Your task to perform on an android device: find snoozed emails in the gmail app Image 0: 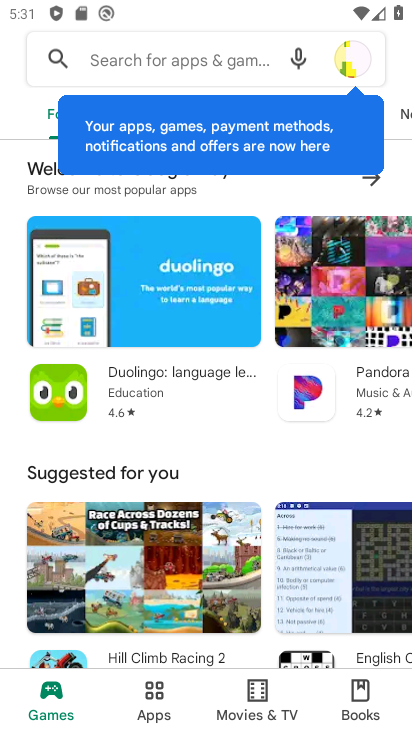
Step 0: press home button
Your task to perform on an android device: find snoozed emails in the gmail app Image 1: 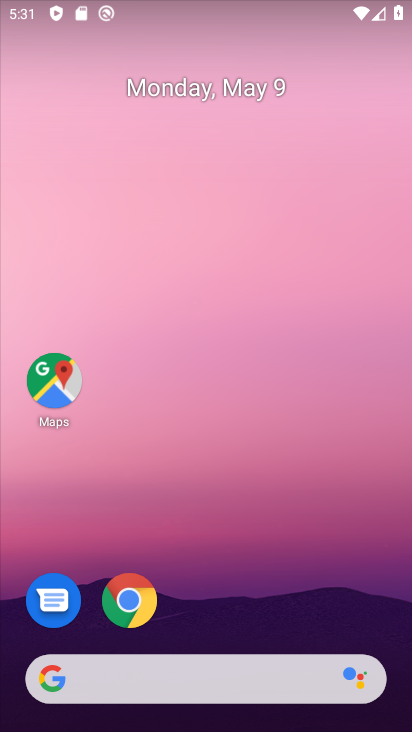
Step 1: drag from (200, 613) to (349, 18)
Your task to perform on an android device: find snoozed emails in the gmail app Image 2: 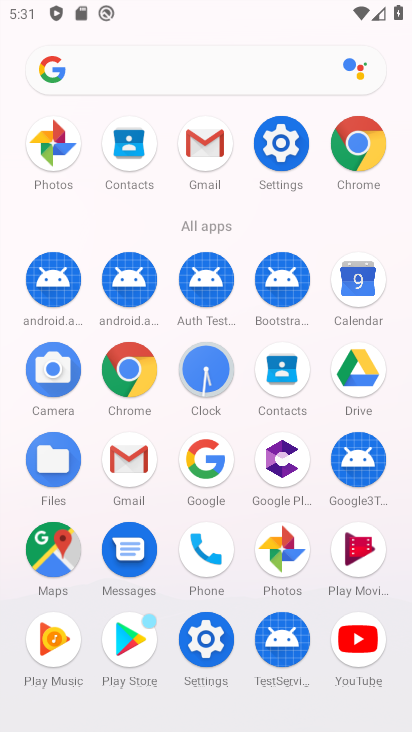
Step 2: click (141, 462)
Your task to perform on an android device: find snoozed emails in the gmail app Image 3: 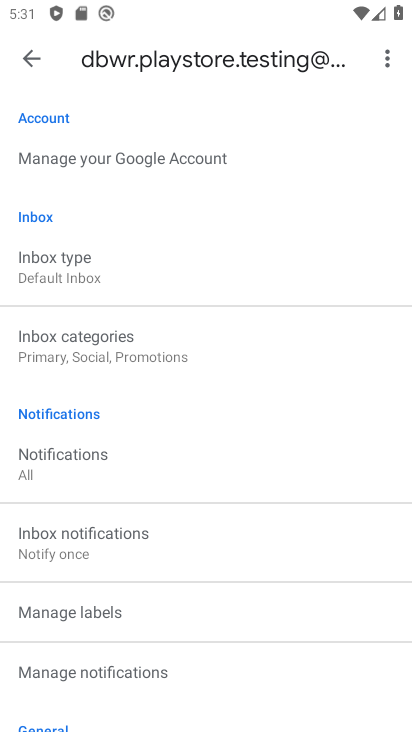
Step 3: click (29, 47)
Your task to perform on an android device: find snoozed emails in the gmail app Image 4: 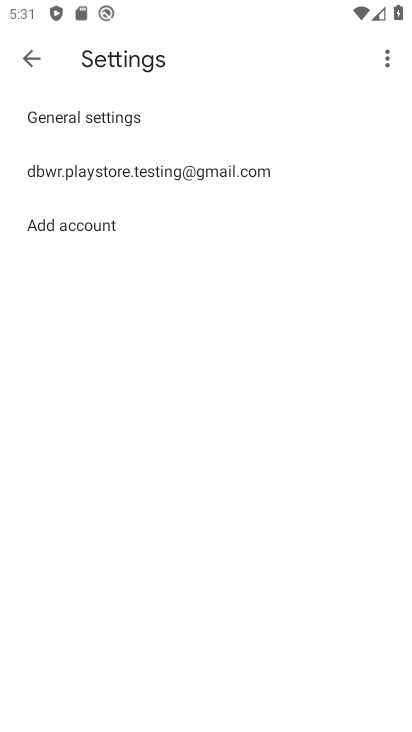
Step 4: click (34, 60)
Your task to perform on an android device: find snoozed emails in the gmail app Image 5: 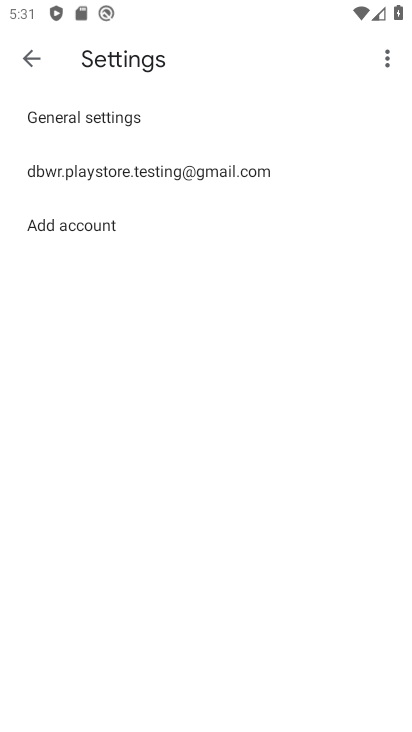
Step 5: click (35, 61)
Your task to perform on an android device: find snoozed emails in the gmail app Image 6: 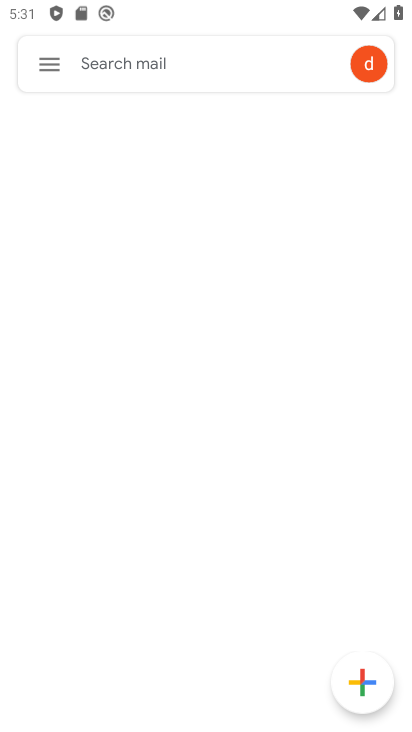
Step 6: click (35, 61)
Your task to perform on an android device: find snoozed emails in the gmail app Image 7: 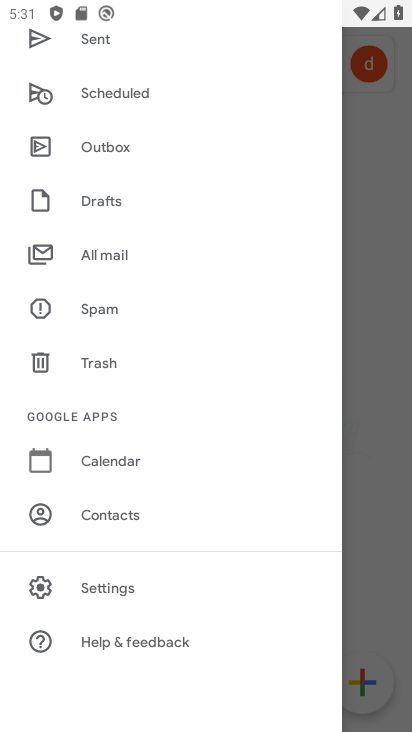
Step 7: drag from (139, 276) to (135, 679)
Your task to perform on an android device: find snoozed emails in the gmail app Image 8: 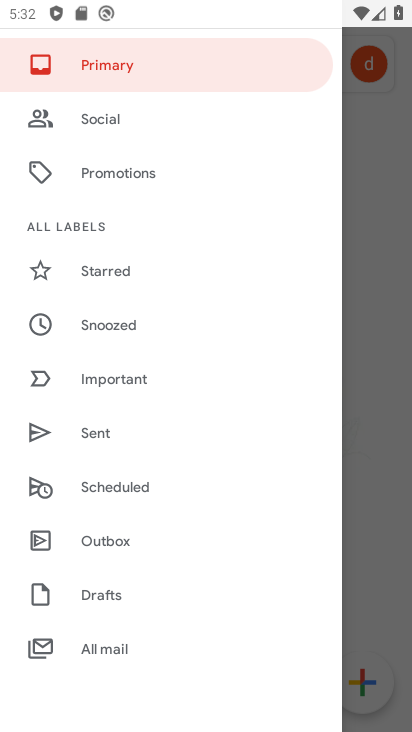
Step 8: click (126, 331)
Your task to perform on an android device: find snoozed emails in the gmail app Image 9: 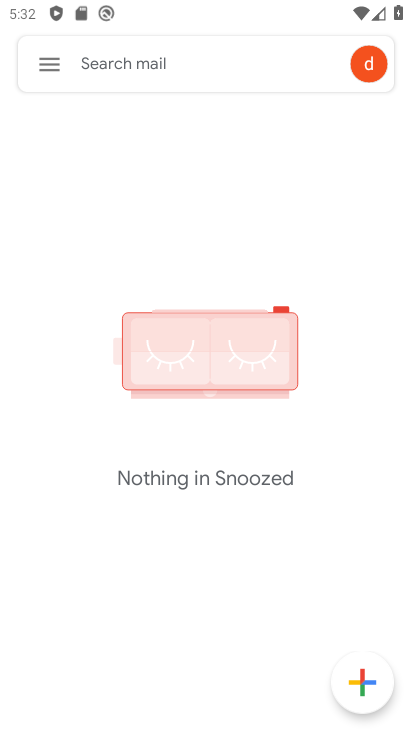
Step 9: task complete